Your task to perform on an android device: Open Maps and search for coffee Image 0: 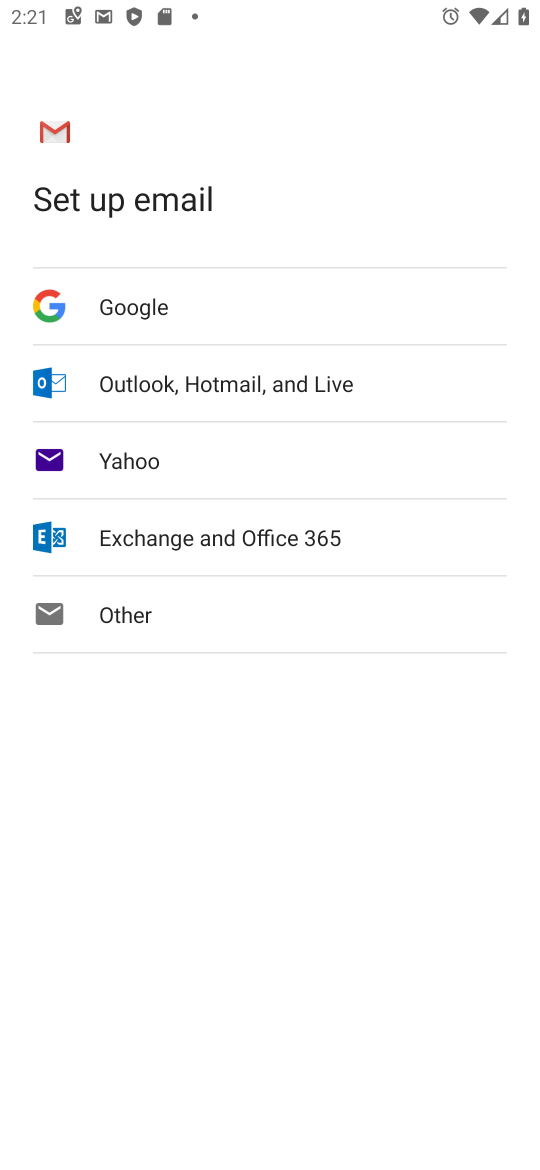
Step 0: press home button
Your task to perform on an android device: Open Maps and search for coffee Image 1: 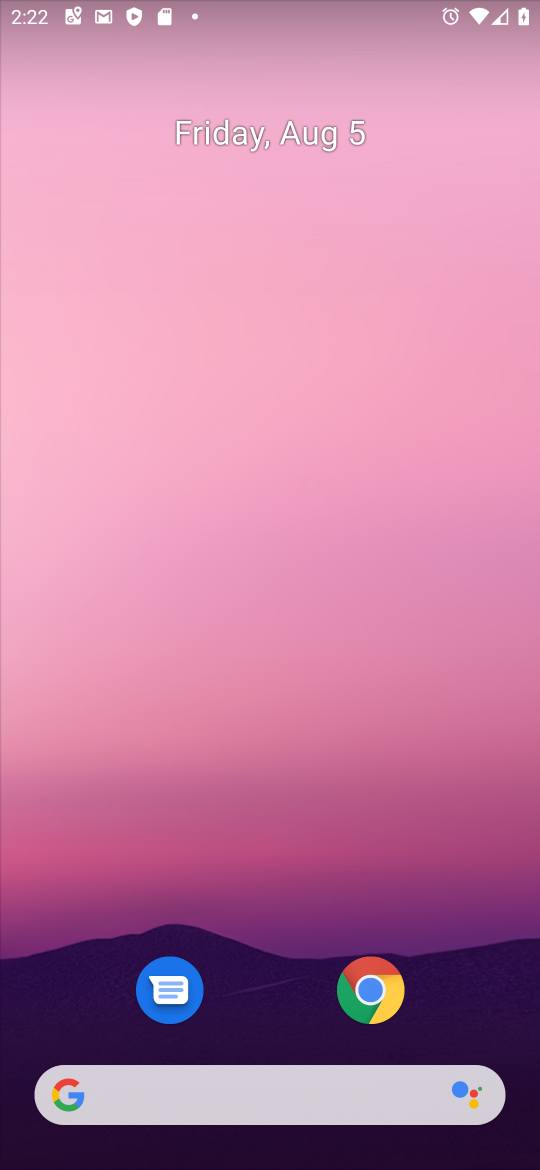
Step 1: drag from (275, 1032) to (219, 264)
Your task to perform on an android device: Open Maps and search for coffee Image 2: 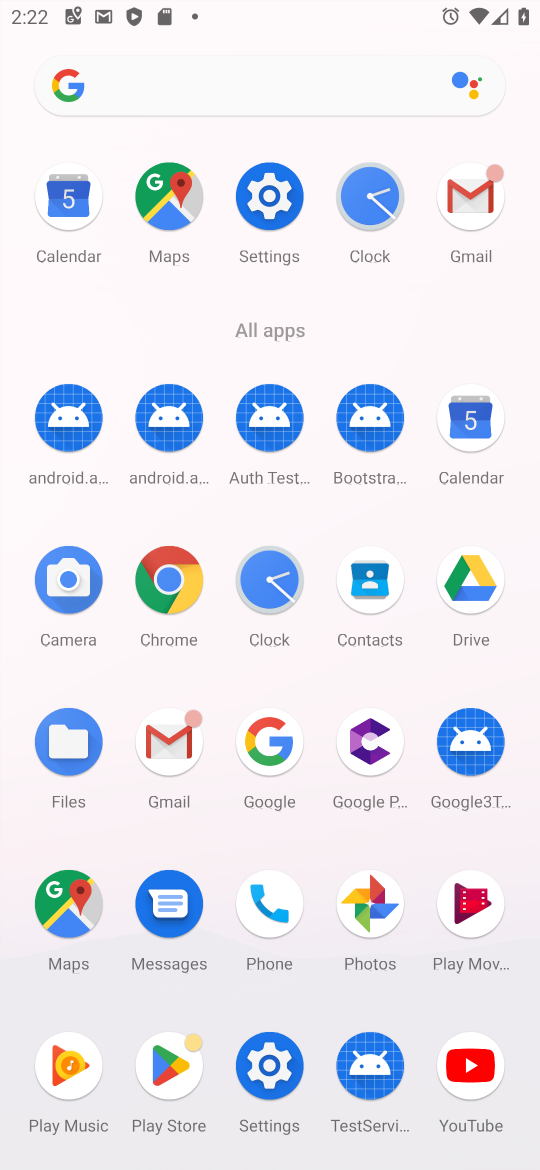
Step 2: click (37, 923)
Your task to perform on an android device: Open Maps and search for coffee Image 3: 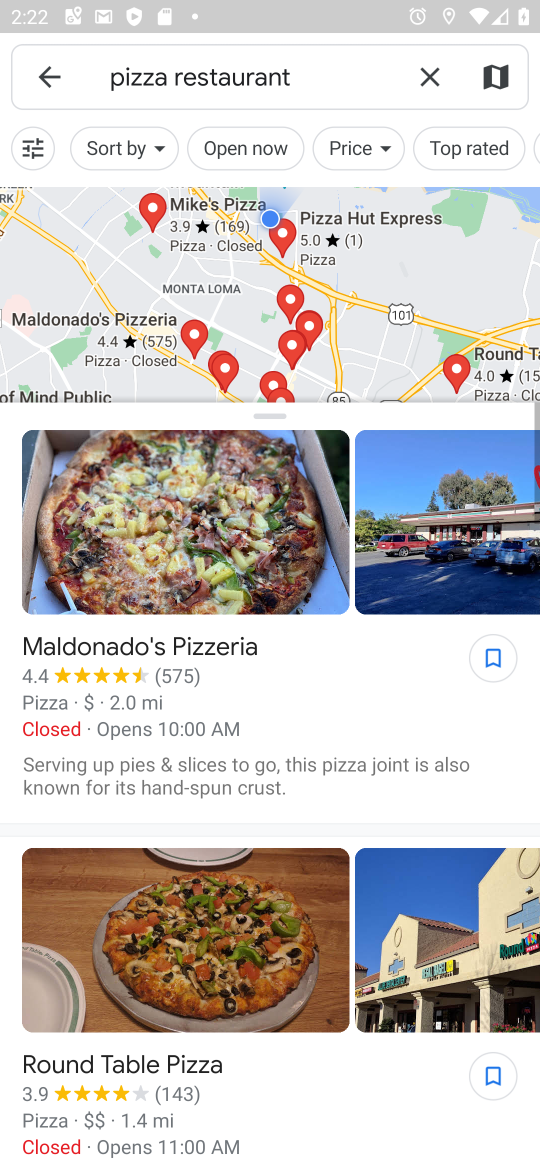
Step 3: click (435, 81)
Your task to perform on an android device: Open Maps and search for coffee Image 4: 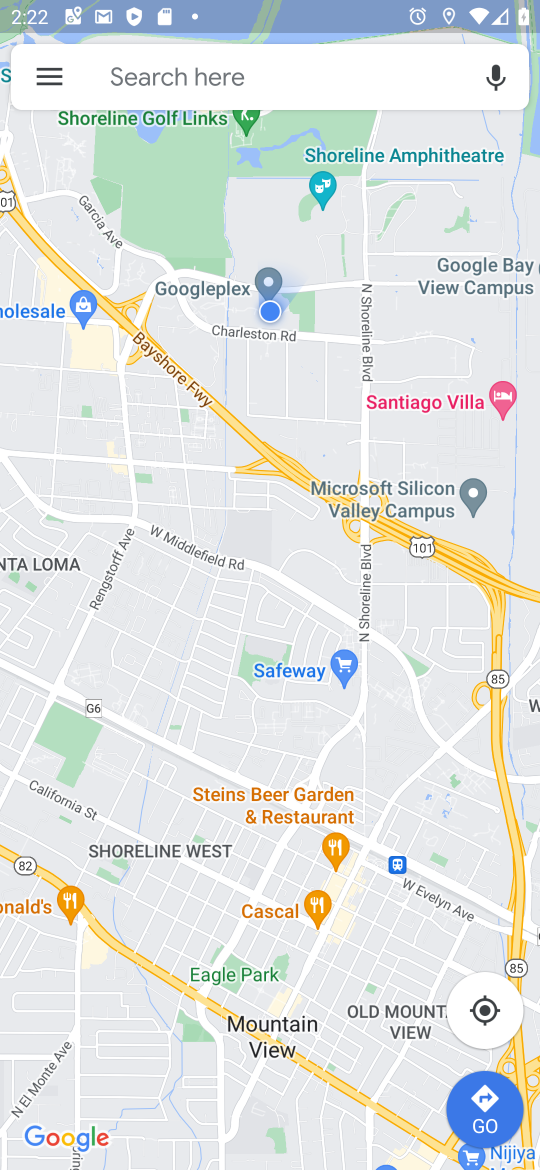
Step 4: click (166, 88)
Your task to perform on an android device: Open Maps and search for coffee Image 5: 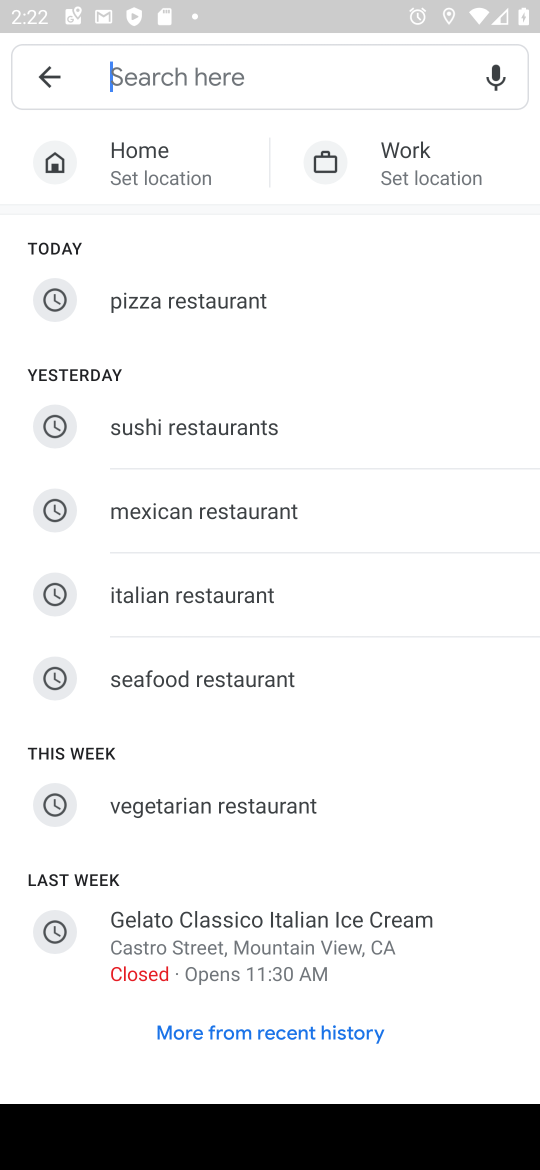
Step 5: type "coffee"
Your task to perform on an android device: Open Maps and search for coffee Image 6: 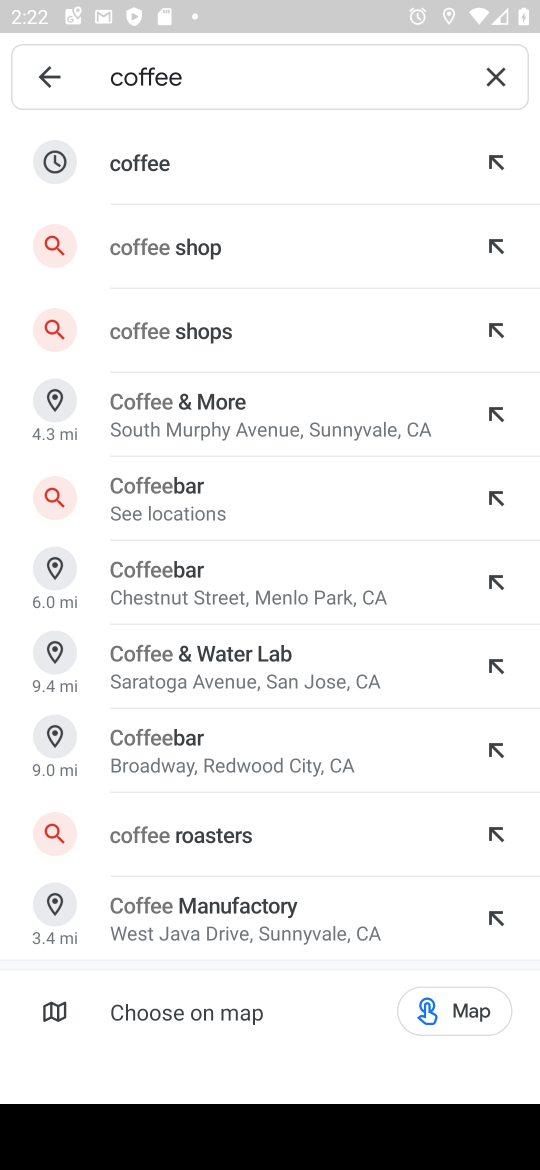
Step 6: click (216, 166)
Your task to perform on an android device: Open Maps and search for coffee Image 7: 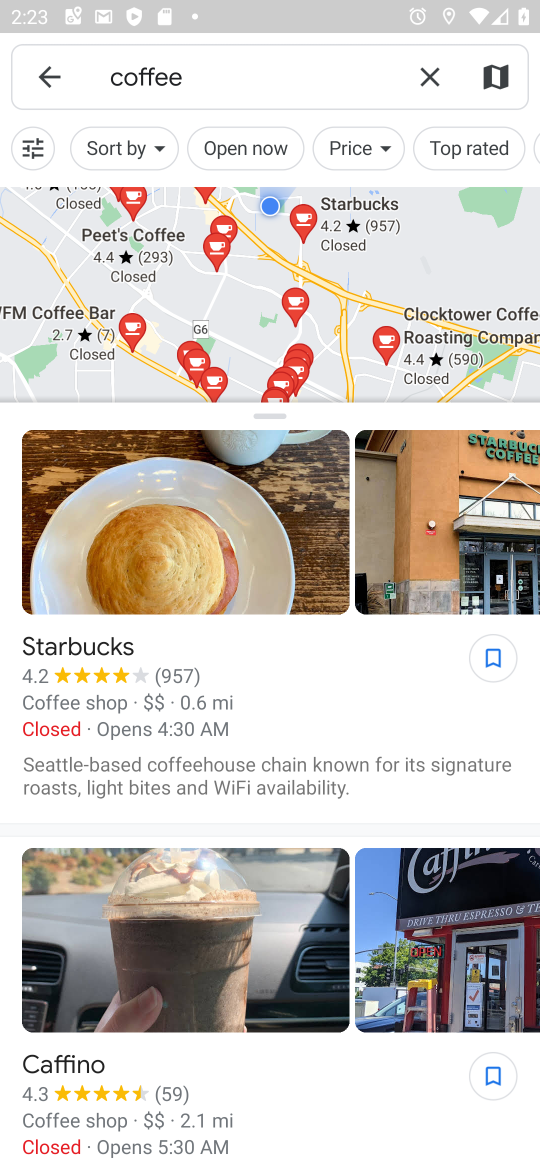
Step 7: task complete